Your task to perform on an android device: Go to notification settings Image 0: 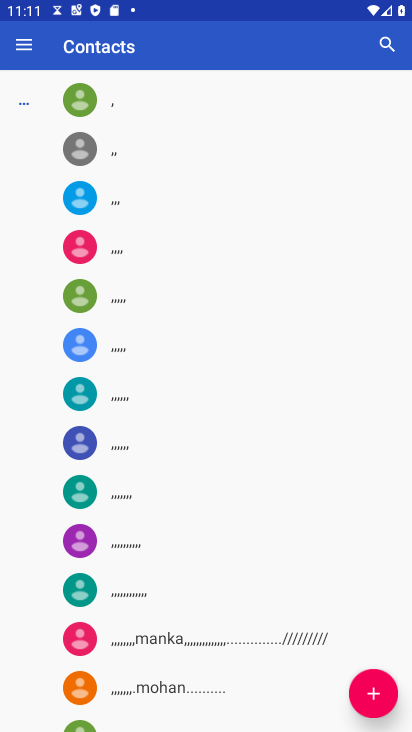
Step 0: press home button
Your task to perform on an android device: Go to notification settings Image 1: 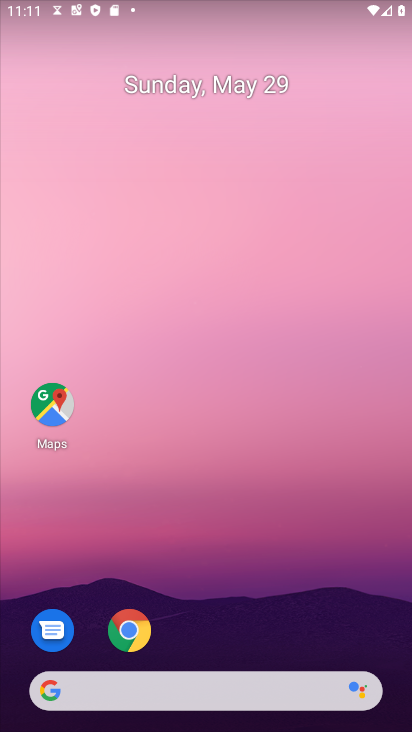
Step 1: drag from (229, 567) to (219, 6)
Your task to perform on an android device: Go to notification settings Image 2: 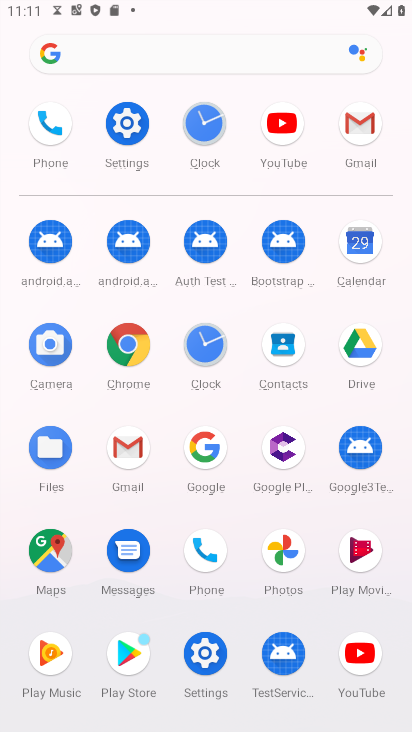
Step 2: click (118, 130)
Your task to perform on an android device: Go to notification settings Image 3: 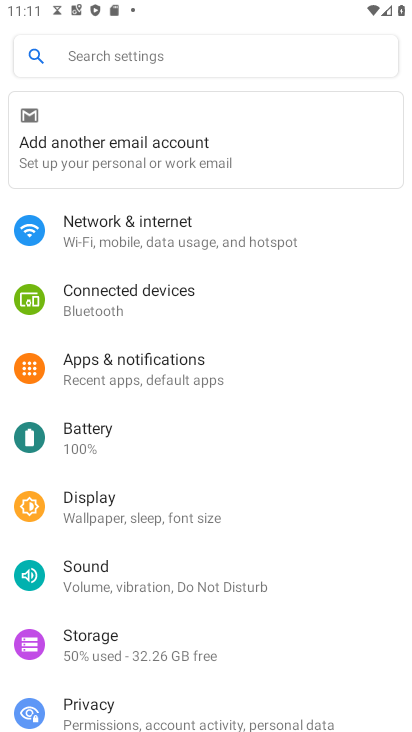
Step 3: click (137, 367)
Your task to perform on an android device: Go to notification settings Image 4: 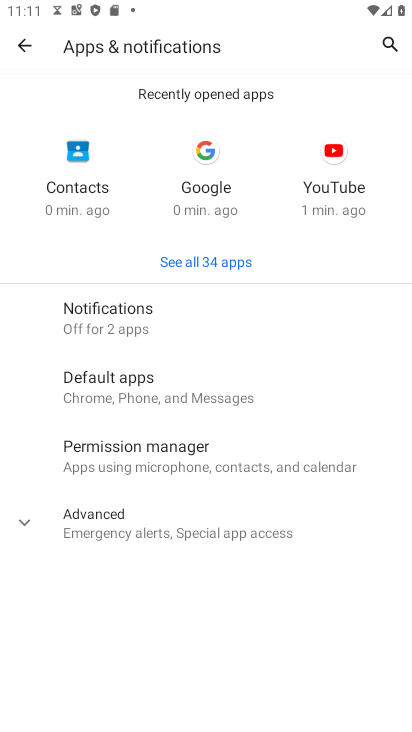
Step 4: click (115, 301)
Your task to perform on an android device: Go to notification settings Image 5: 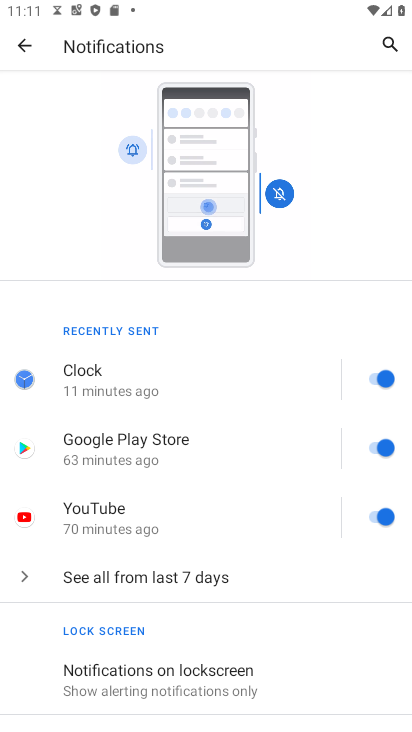
Step 5: task complete